Your task to perform on an android device: Open the Play Movies app and select the watchlist tab. Image 0: 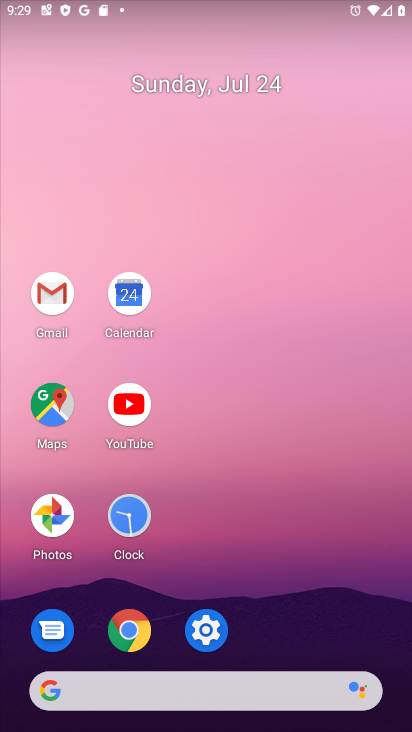
Step 0: drag from (264, 579) to (271, 0)
Your task to perform on an android device: Open the Play Movies app and select the watchlist tab. Image 1: 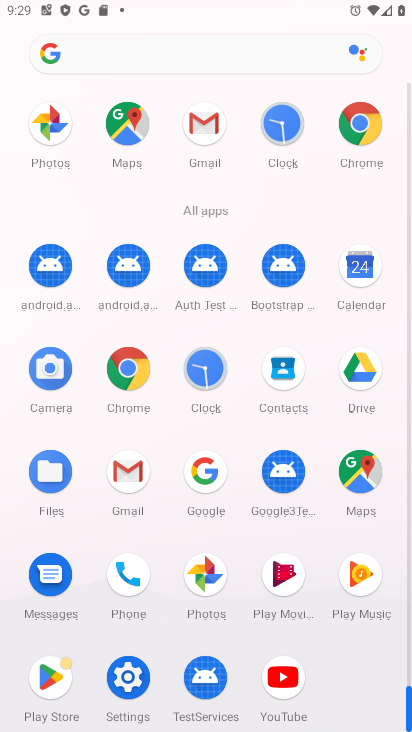
Step 1: click (282, 578)
Your task to perform on an android device: Open the Play Movies app and select the watchlist tab. Image 2: 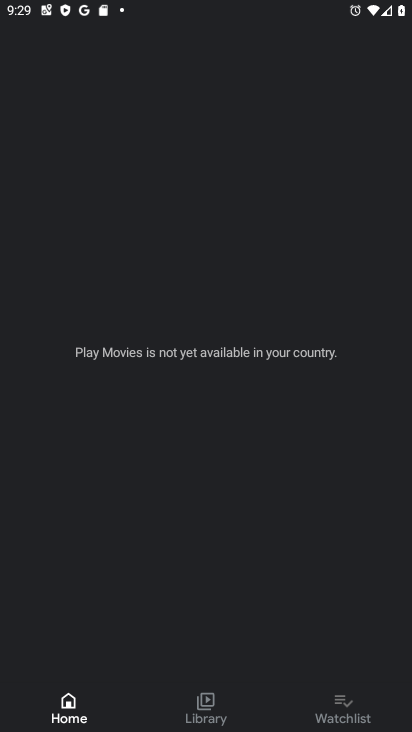
Step 2: click (345, 709)
Your task to perform on an android device: Open the Play Movies app and select the watchlist tab. Image 3: 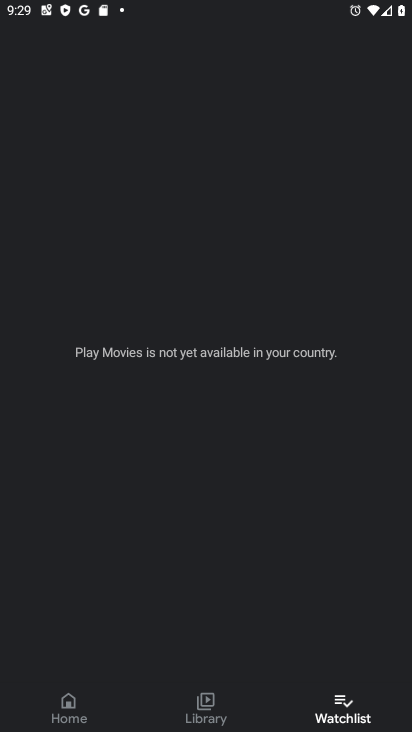
Step 3: task complete